Your task to perform on an android device: Go to Amazon Image 0: 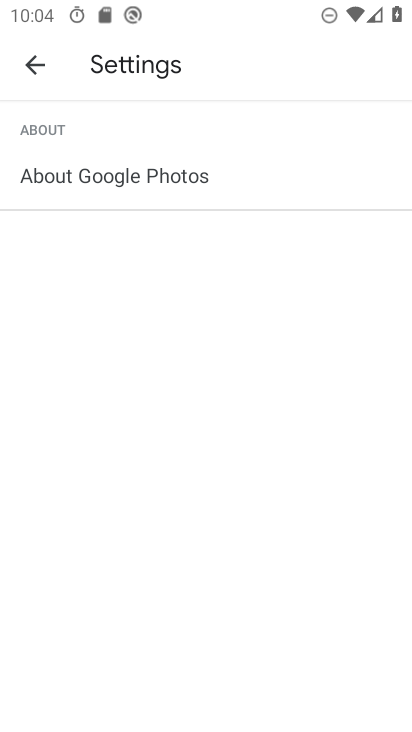
Step 0: press home button
Your task to perform on an android device: Go to Amazon Image 1: 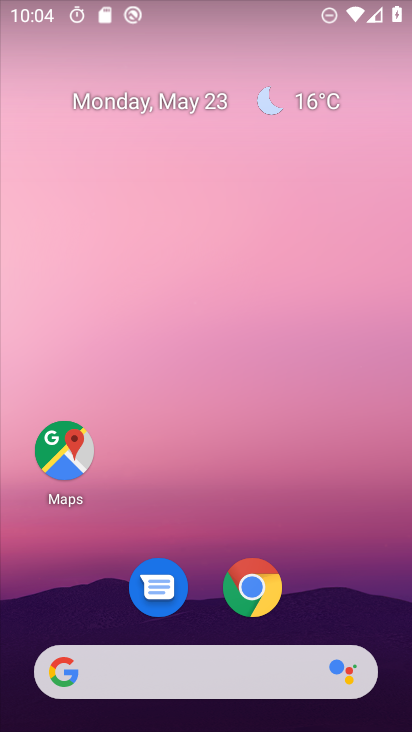
Step 1: click (245, 608)
Your task to perform on an android device: Go to Amazon Image 2: 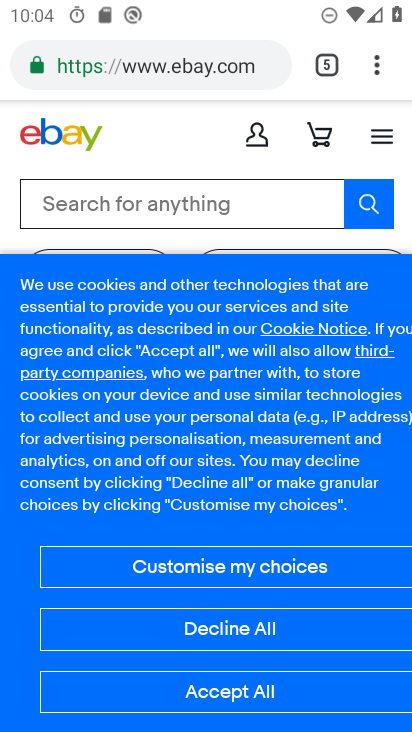
Step 2: click (335, 62)
Your task to perform on an android device: Go to Amazon Image 3: 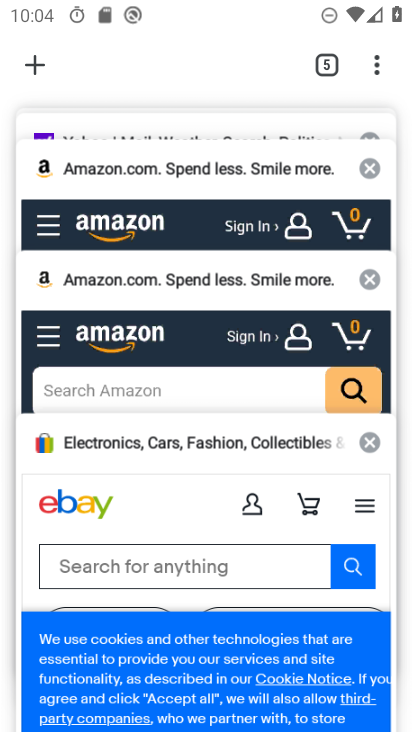
Step 3: click (110, 176)
Your task to perform on an android device: Go to Amazon Image 4: 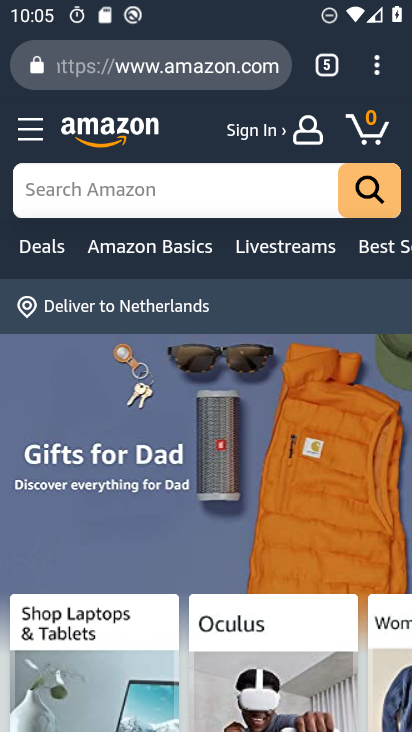
Step 4: task complete